Your task to perform on an android device: open wifi settings Image 0: 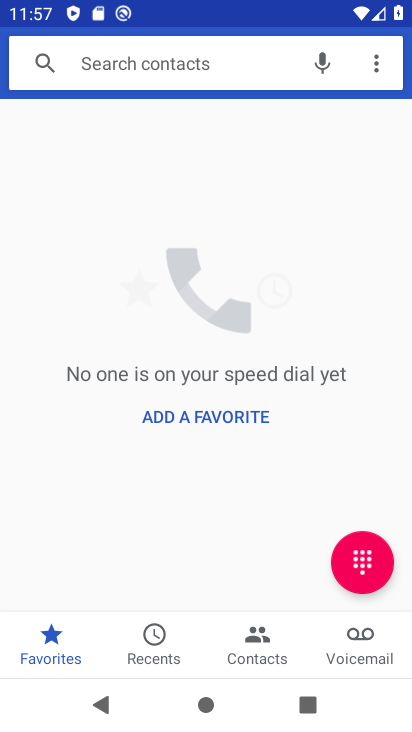
Step 0: press home button
Your task to perform on an android device: open wifi settings Image 1: 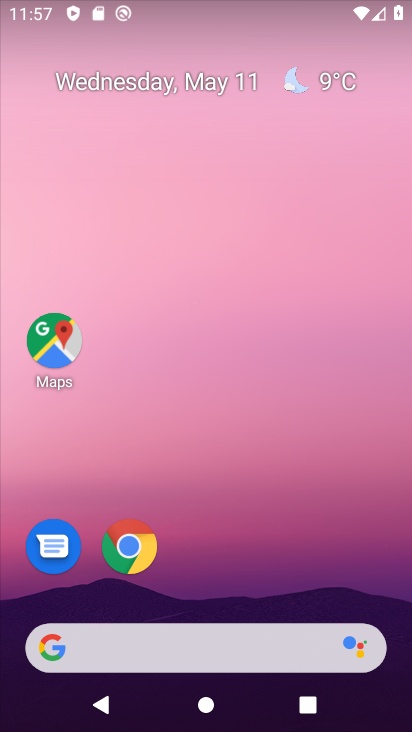
Step 1: drag from (233, 551) to (253, 0)
Your task to perform on an android device: open wifi settings Image 2: 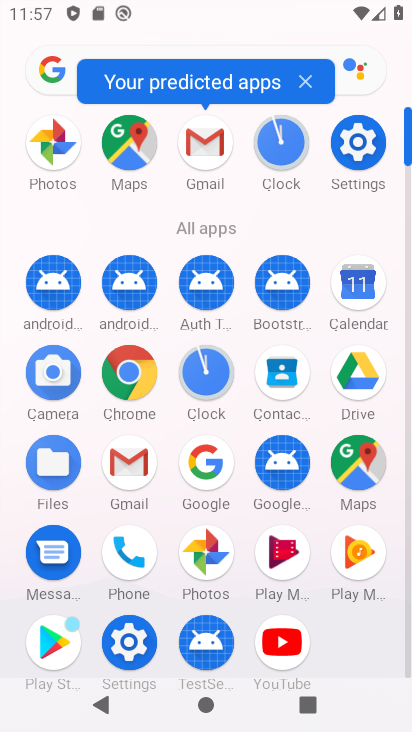
Step 2: click (349, 135)
Your task to perform on an android device: open wifi settings Image 3: 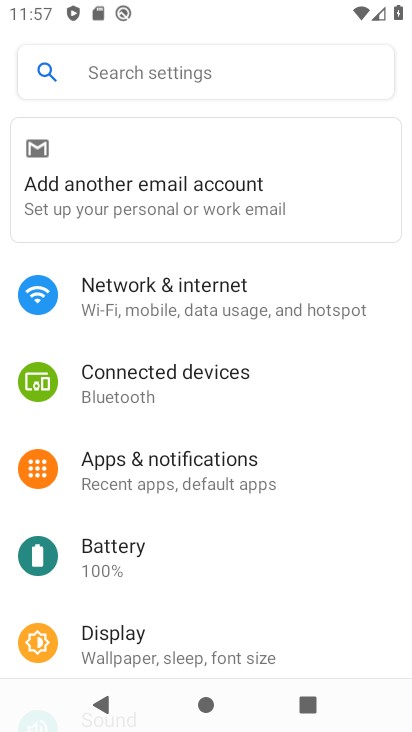
Step 3: click (122, 296)
Your task to perform on an android device: open wifi settings Image 4: 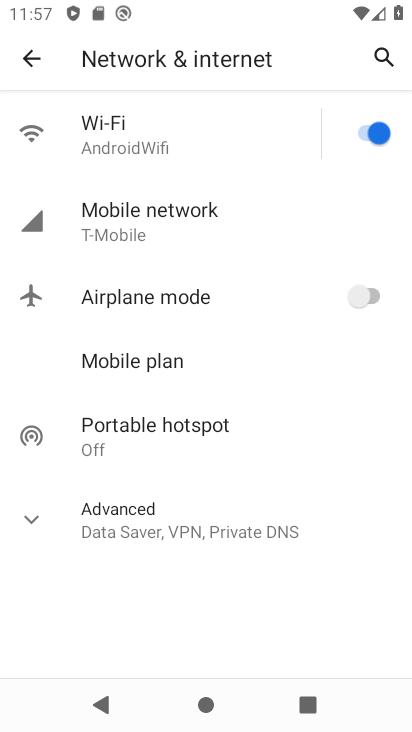
Step 4: click (145, 139)
Your task to perform on an android device: open wifi settings Image 5: 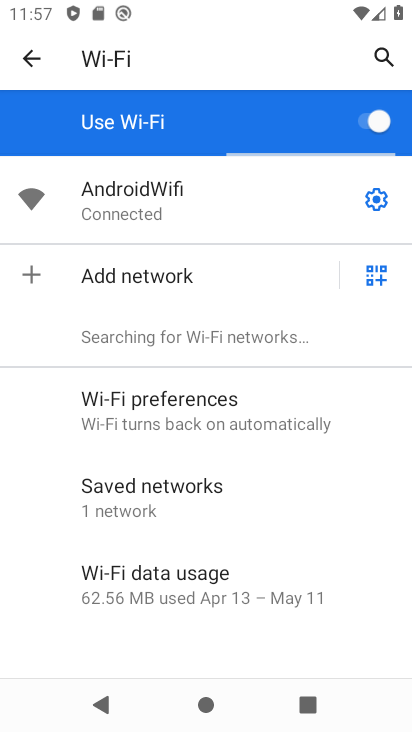
Step 5: task complete